Your task to perform on an android device: Check the news Image 0: 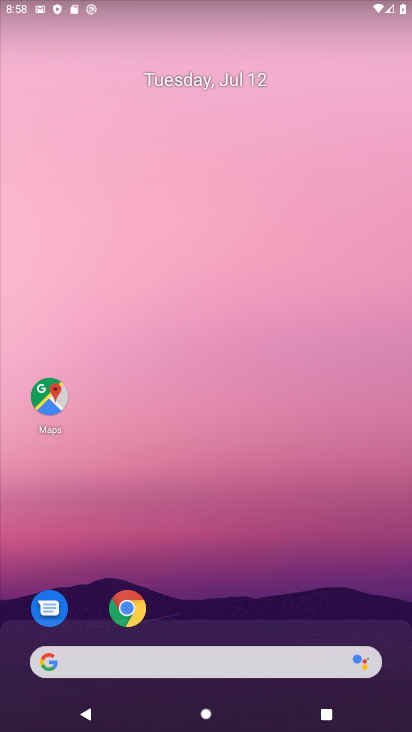
Step 0: drag from (223, 636) to (227, 3)
Your task to perform on an android device: Check the news Image 1: 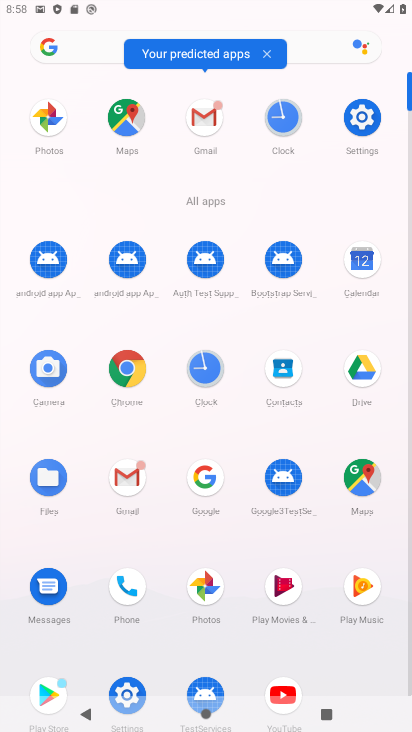
Step 1: click (134, 382)
Your task to perform on an android device: Check the news Image 2: 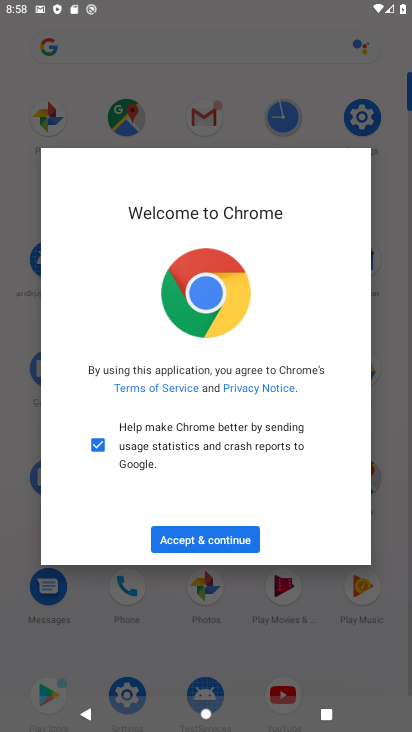
Step 2: click (233, 537)
Your task to perform on an android device: Check the news Image 3: 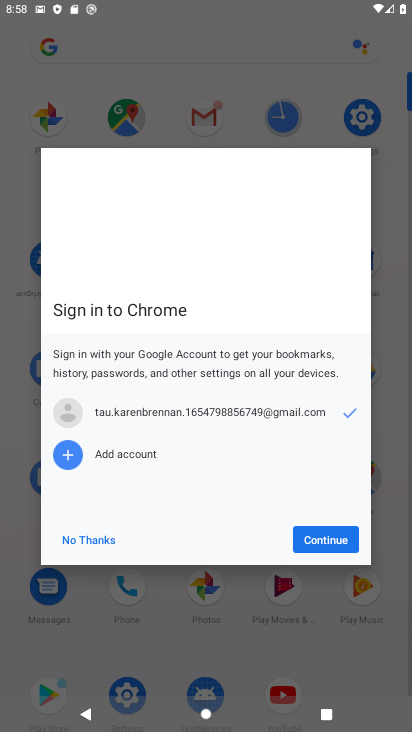
Step 3: click (107, 536)
Your task to perform on an android device: Check the news Image 4: 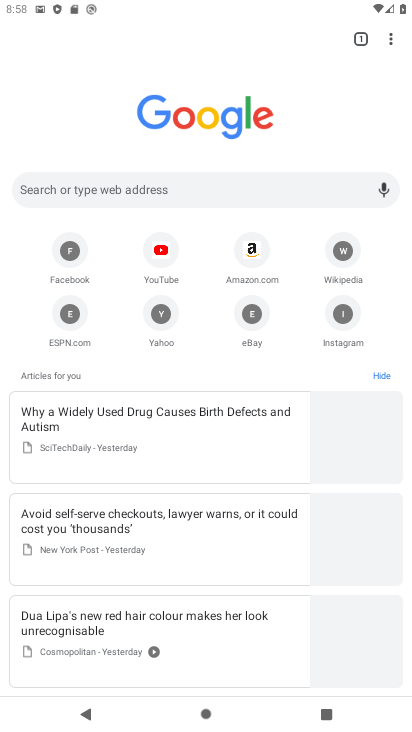
Step 4: click (77, 195)
Your task to perform on an android device: Check the news Image 5: 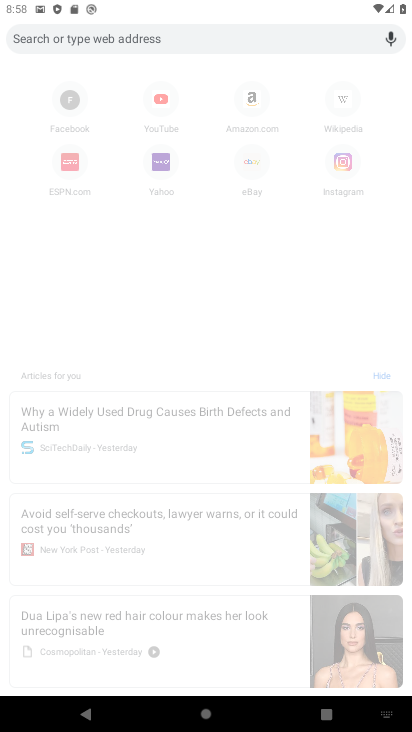
Step 5: type "check the news"
Your task to perform on an android device: Check the news Image 6: 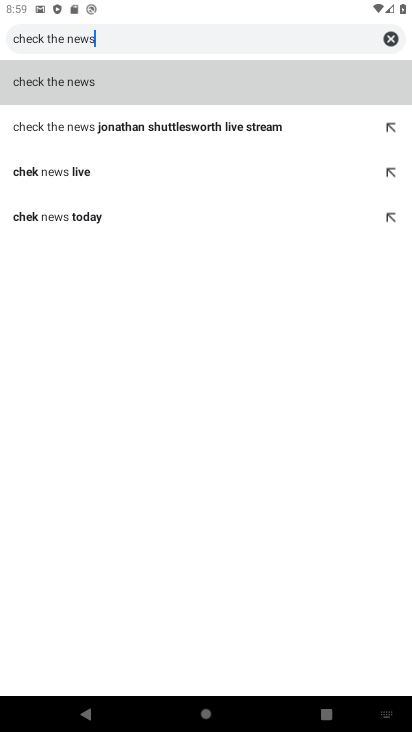
Step 6: click (19, 75)
Your task to perform on an android device: Check the news Image 7: 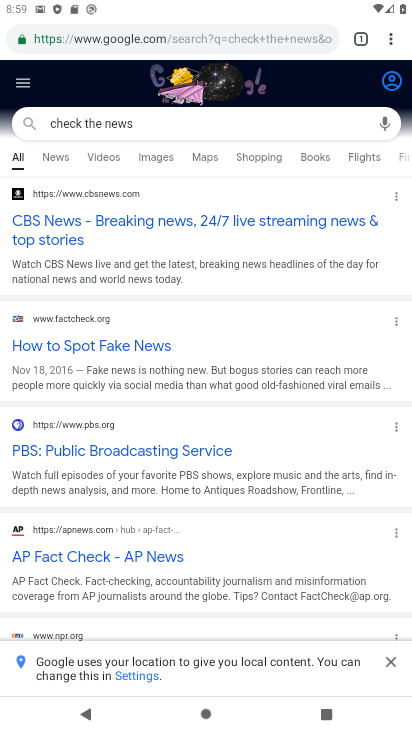
Step 7: task complete